Your task to perform on an android device: Turn on the flashlight Image 0: 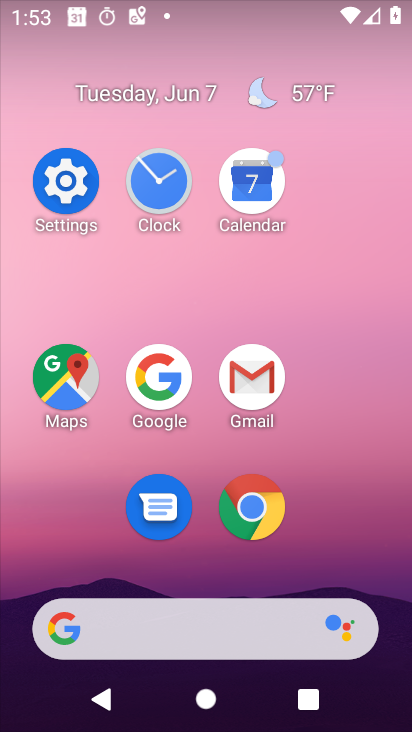
Step 0: drag from (242, 56) to (220, 470)
Your task to perform on an android device: Turn on the flashlight Image 1: 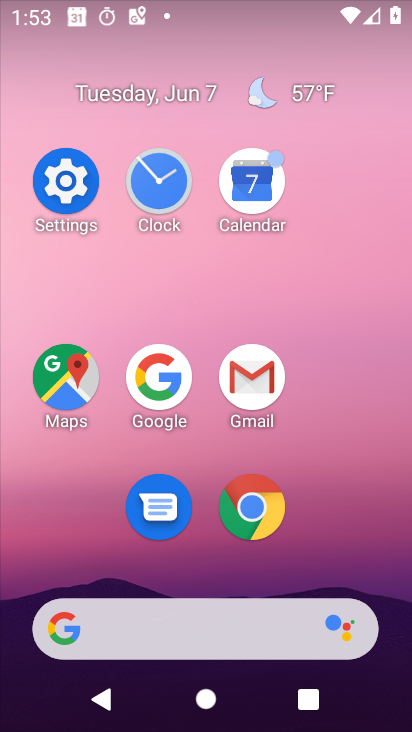
Step 1: task complete